Your task to perform on an android device: turn on airplane mode Image 0: 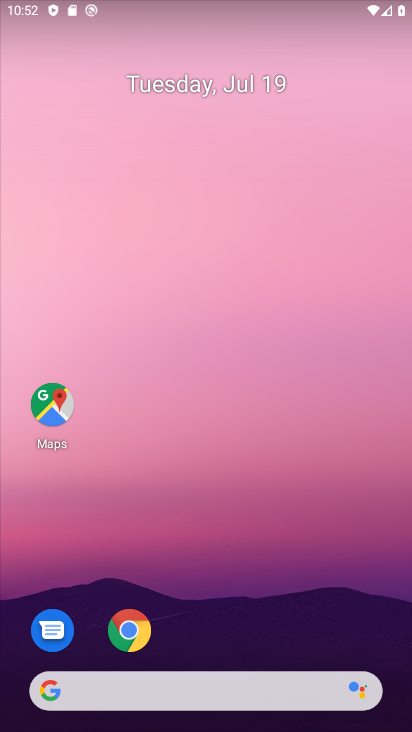
Step 0: drag from (215, 667) to (210, 183)
Your task to perform on an android device: turn on airplane mode Image 1: 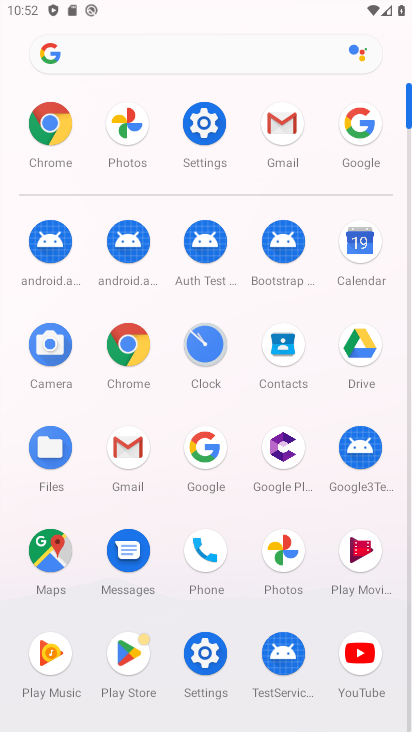
Step 1: click (200, 128)
Your task to perform on an android device: turn on airplane mode Image 2: 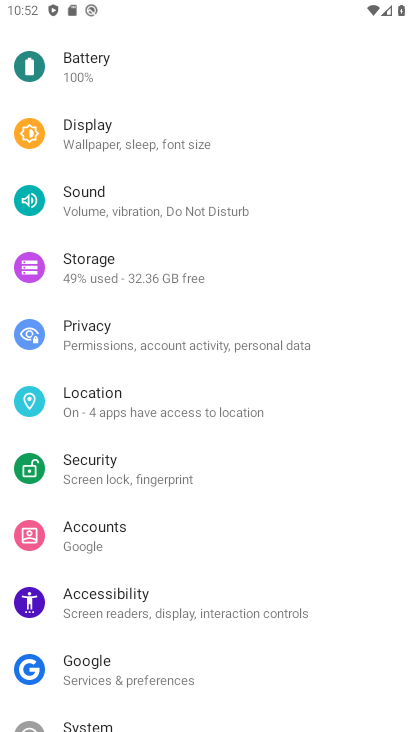
Step 2: drag from (259, 120) to (262, 665)
Your task to perform on an android device: turn on airplane mode Image 3: 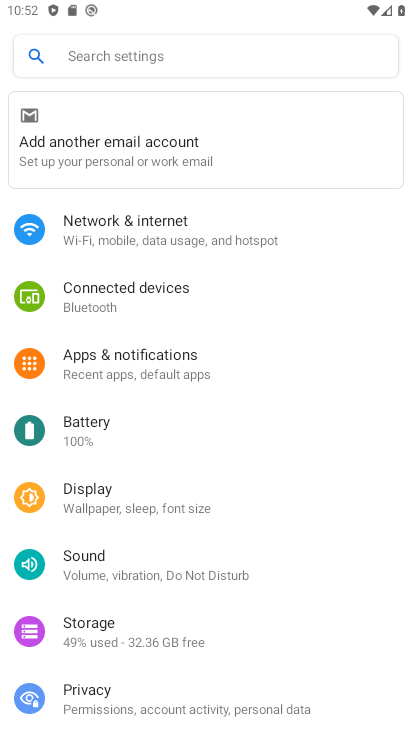
Step 3: click (189, 233)
Your task to perform on an android device: turn on airplane mode Image 4: 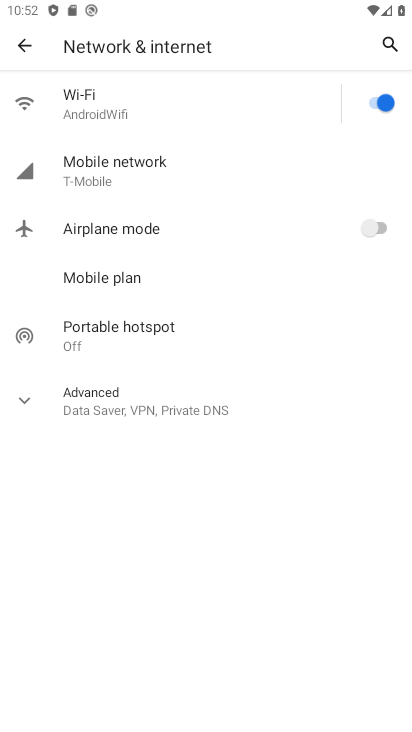
Step 4: click (383, 222)
Your task to perform on an android device: turn on airplane mode Image 5: 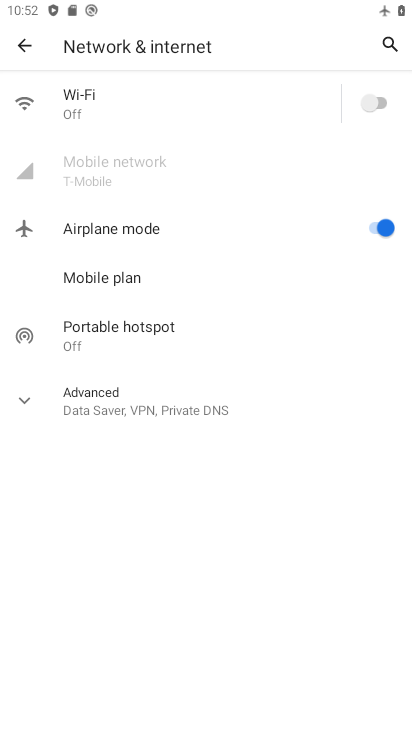
Step 5: task complete